Your task to perform on an android device: make emails show in primary in the gmail app Image 0: 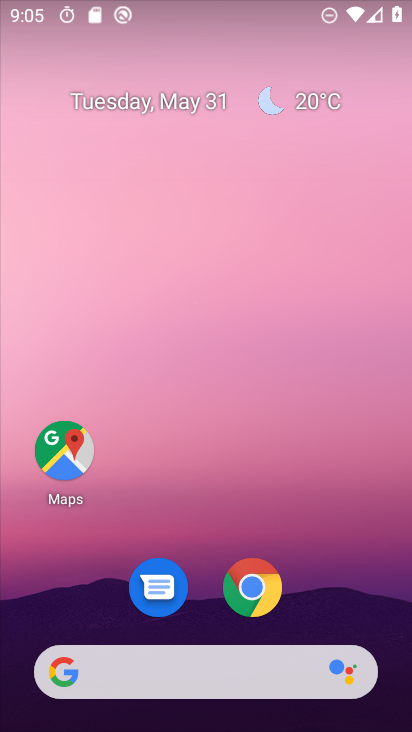
Step 0: drag from (195, 612) to (198, 134)
Your task to perform on an android device: make emails show in primary in the gmail app Image 1: 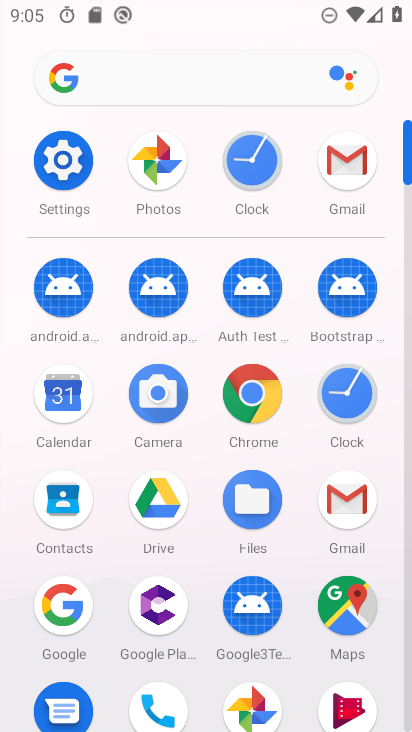
Step 1: click (328, 157)
Your task to perform on an android device: make emails show in primary in the gmail app Image 2: 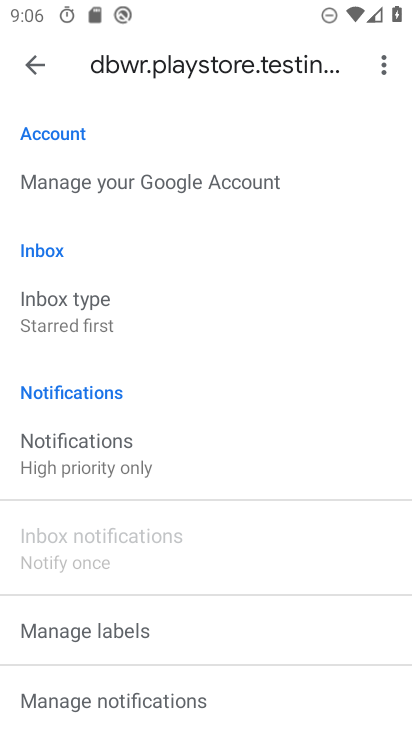
Step 2: click (29, 69)
Your task to perform on an android device: make emails show in primary in the gmail app Image 3: 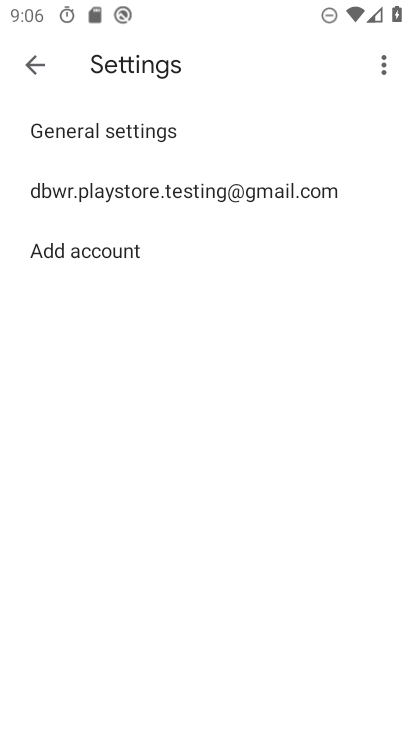
Step 3: click (29, 69)
Your task to perform on an android device: make emails show in primary in the gmail app Image 4: 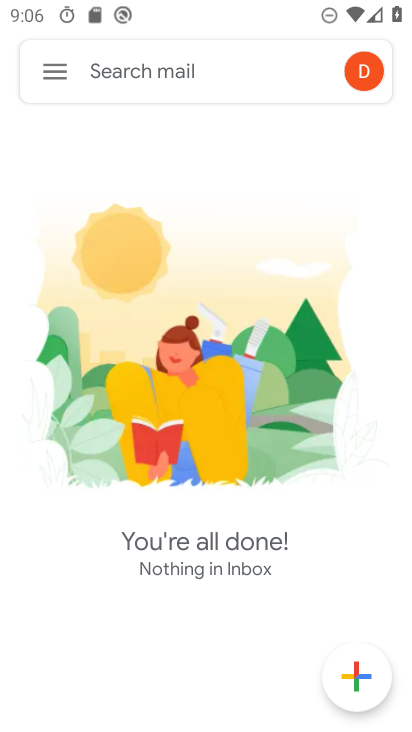
Step 4: click (41, 71)
Your task to perform on an android device: make emails show in primary in the gmail app Image 5: 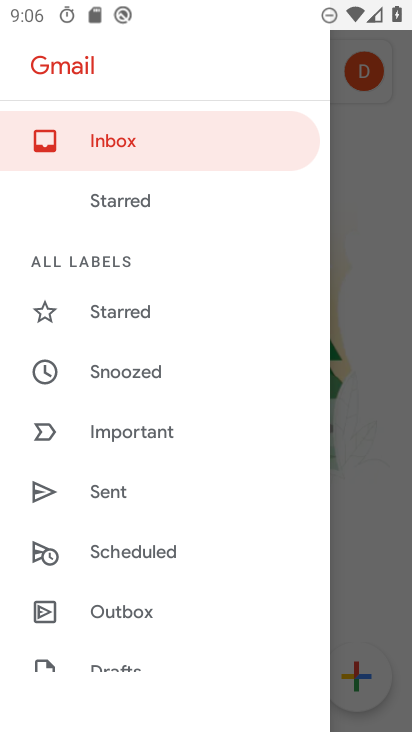
Step 5: click (352, 205)
Your task to perform on an android device: make emails show in primary in the gmail app Image 6: 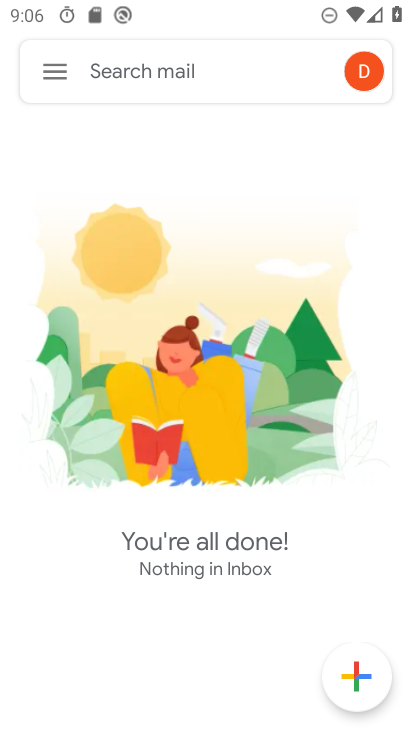
Step 6: task complete